Your task to perform on an android device: Set the phone to "Do not disturb". Image 0: 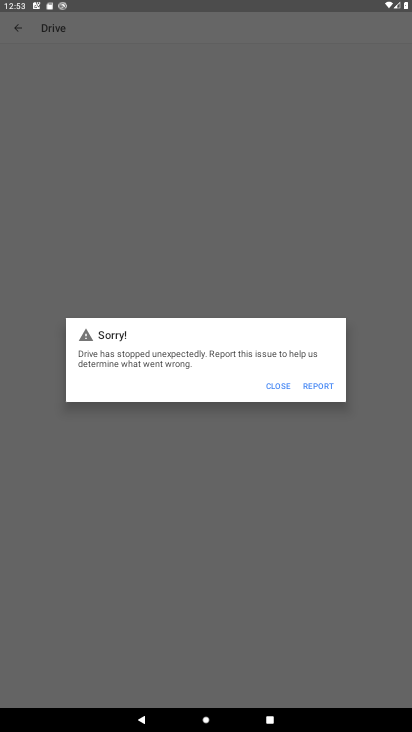
Step 0: click (260, 60)
Your task to perform on an android device: Set the phone to "Do not disturb". Image 1: 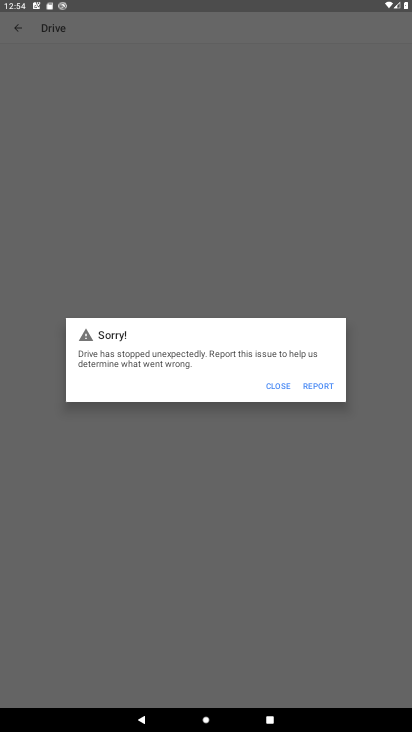
Step 1: drag from (214, 5) to (236, 610)
Your task to perform on an android device: Set the phone to "Do not disturb". Image 2: 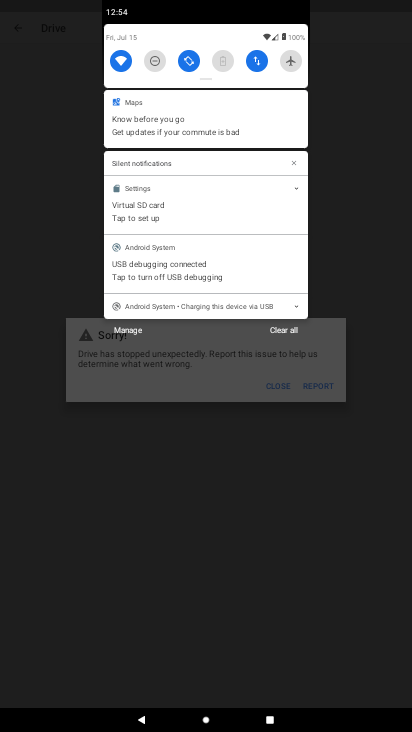
Step 2: click (153, 58)
Your task to perform on an android device: Set the phone to "Do not disturb". Image 3: 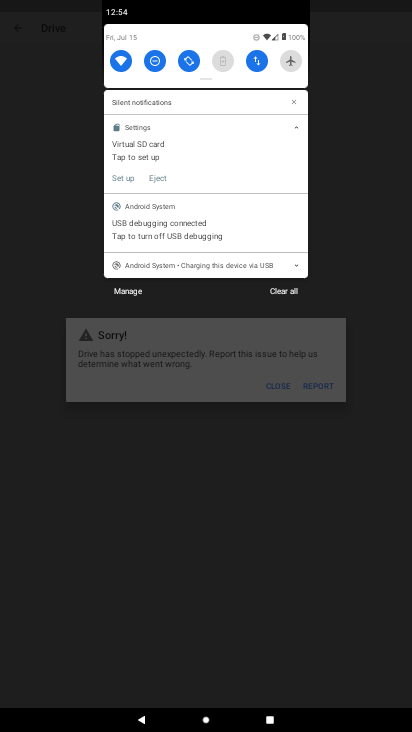
Step 3: task complete